Your task to perform on an android device: Open ESPN.com Image 0: 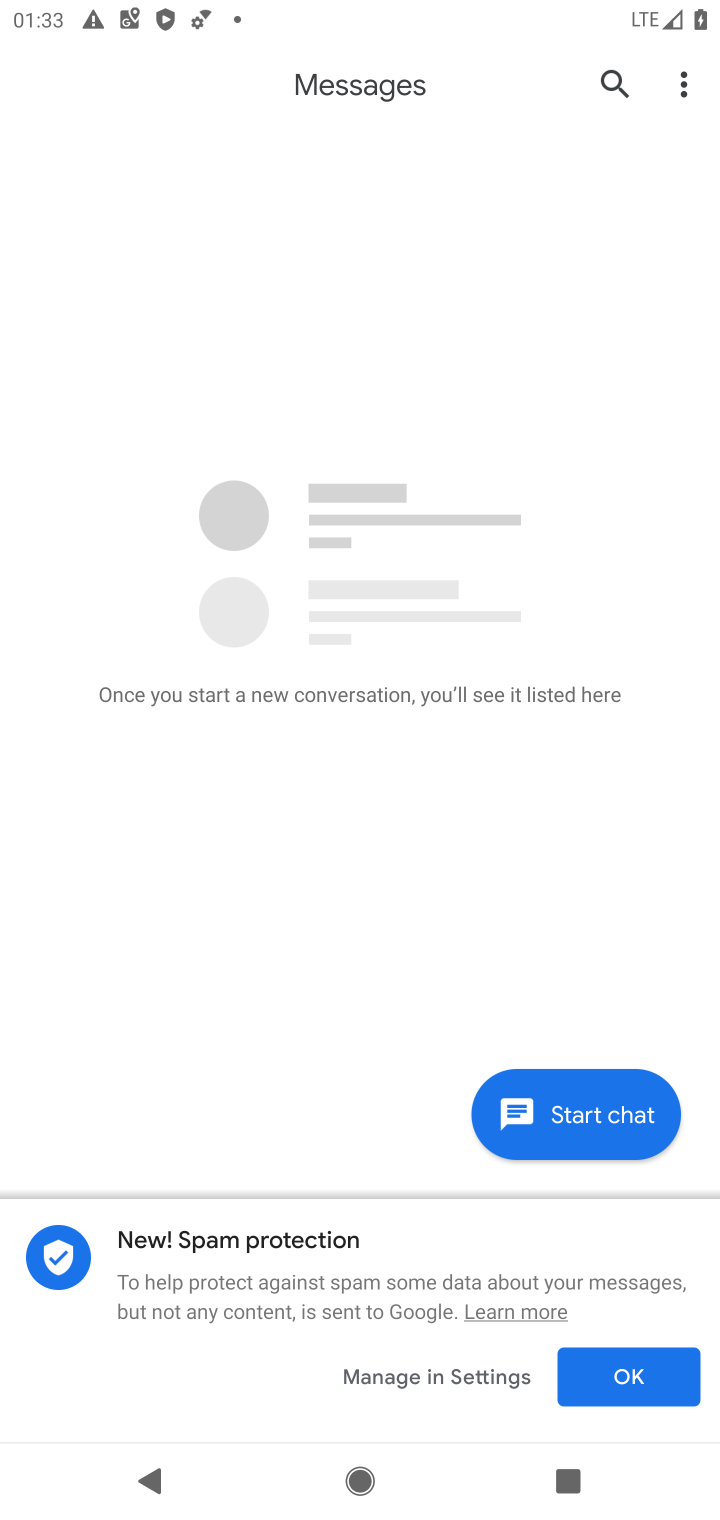
Step 0: press home button
Your task to perform on an android device: Open ESPN.com Image 1: 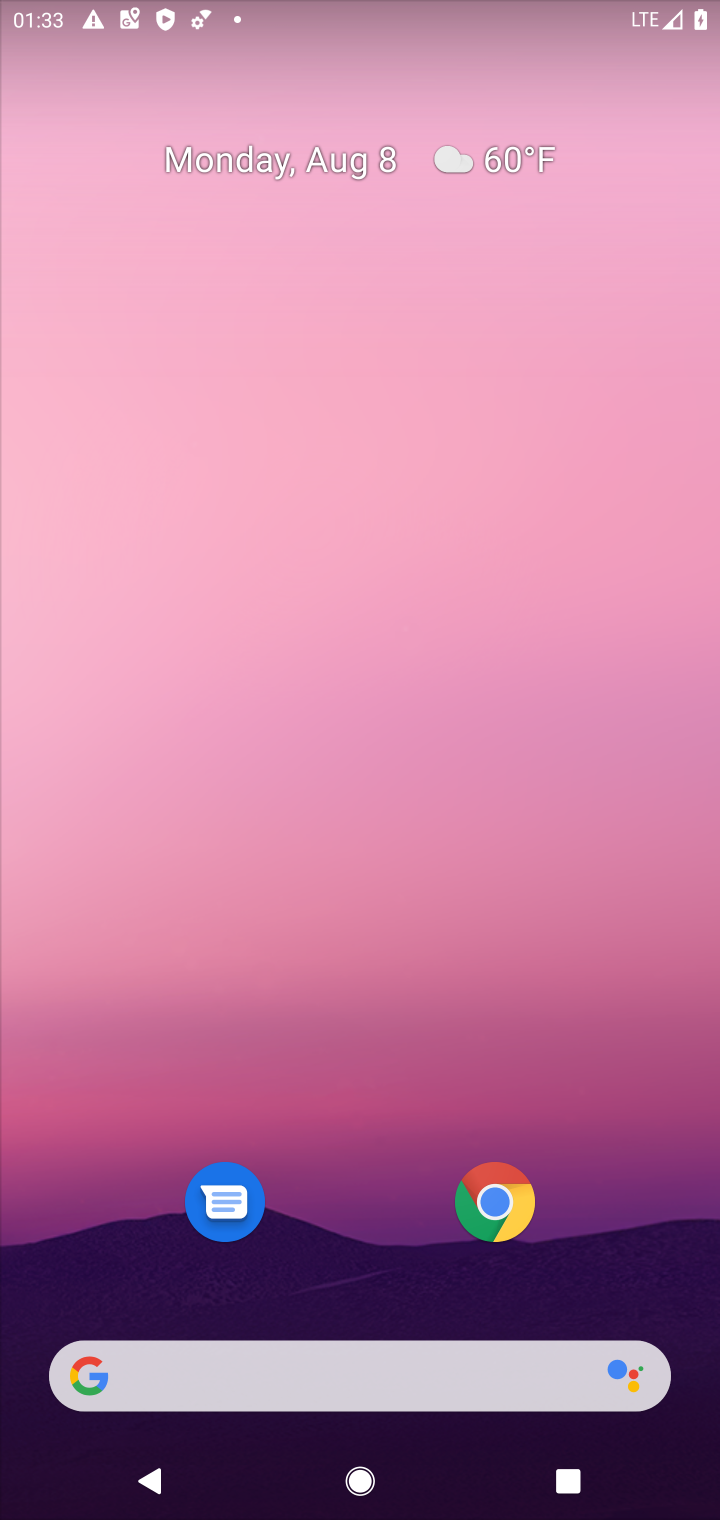
Step 1: click (478, 1204)
Your task to perform on an android device: Open ESPN.com Image 2: 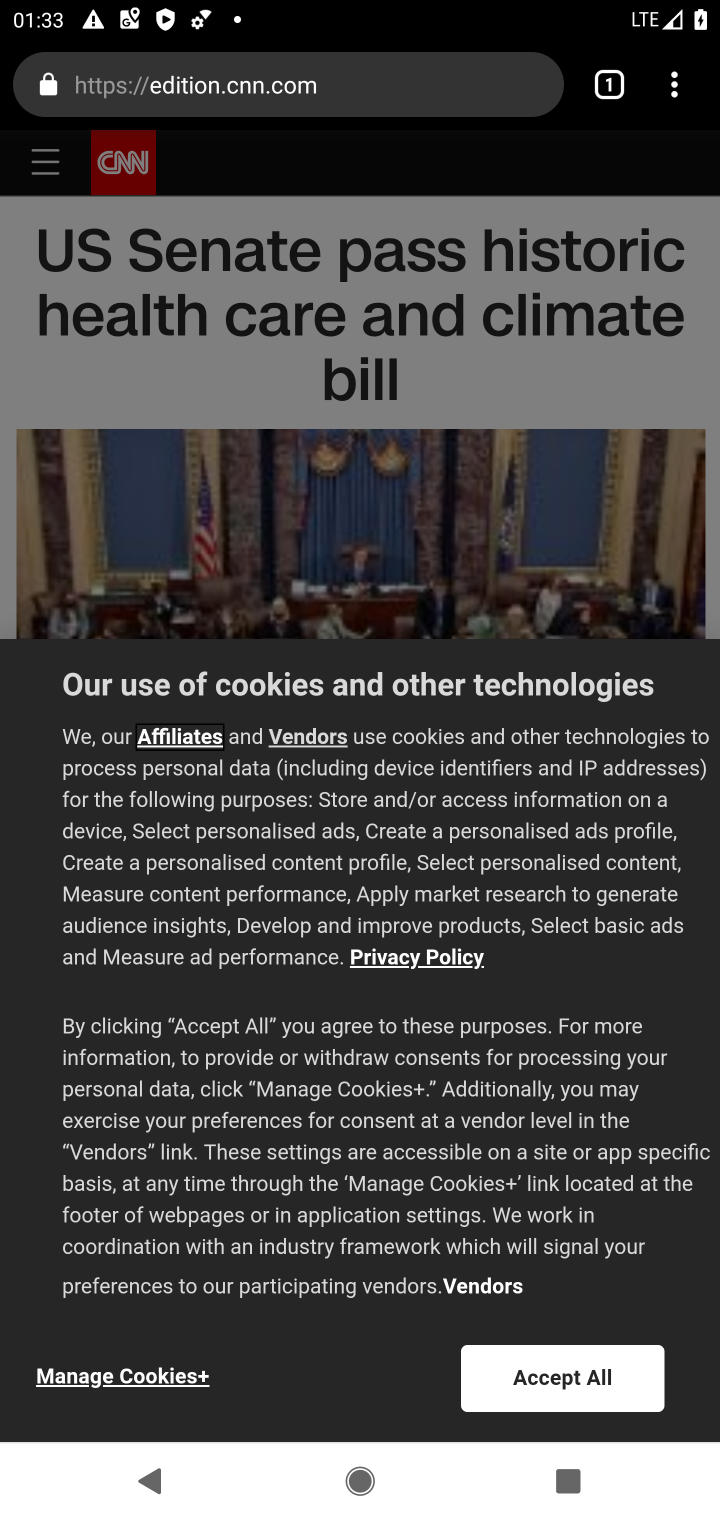
Step 2: click (280, 103)
Your task to perform on an android device: Open ESPN.com Image 3: 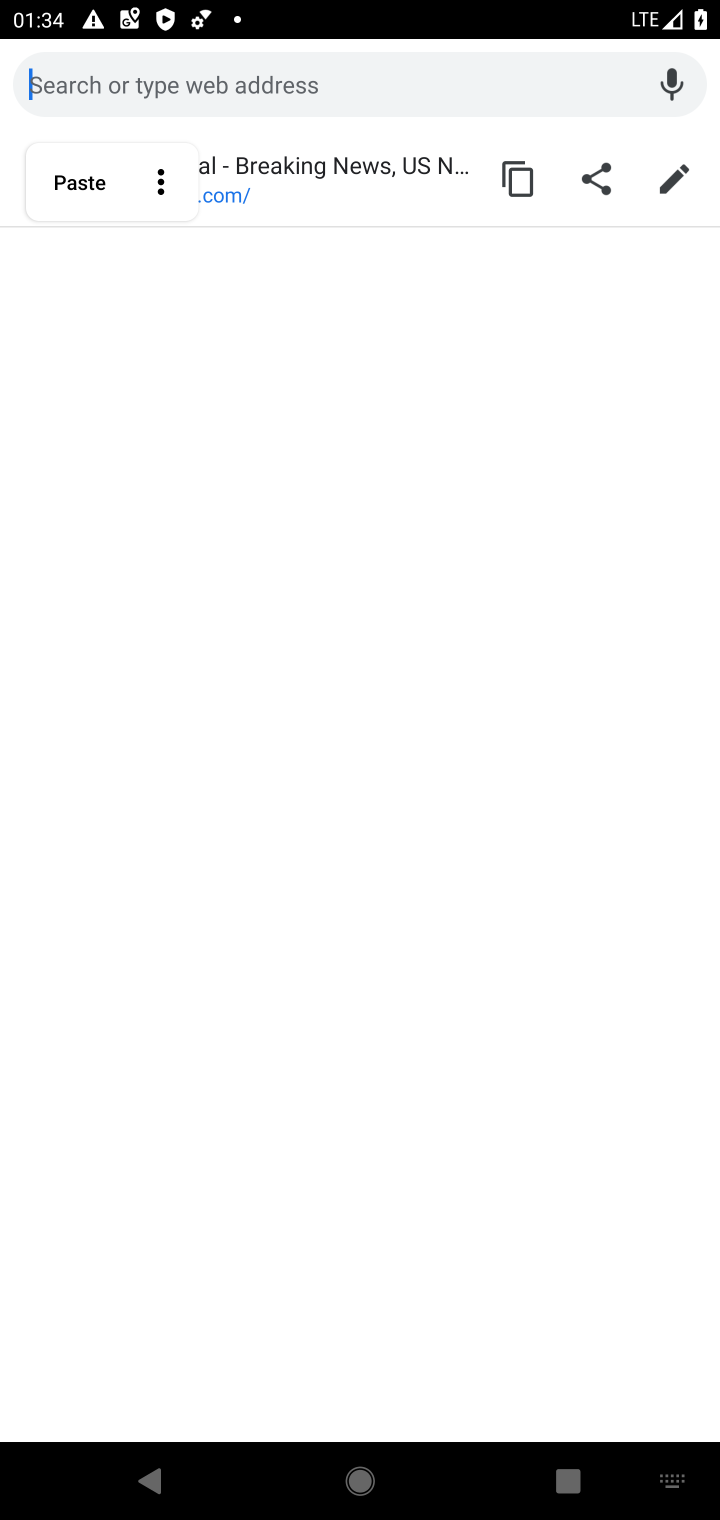
Step 3: type "www.espn.com"
Your task to perform on an android device: Open ESPN.com Image 4: 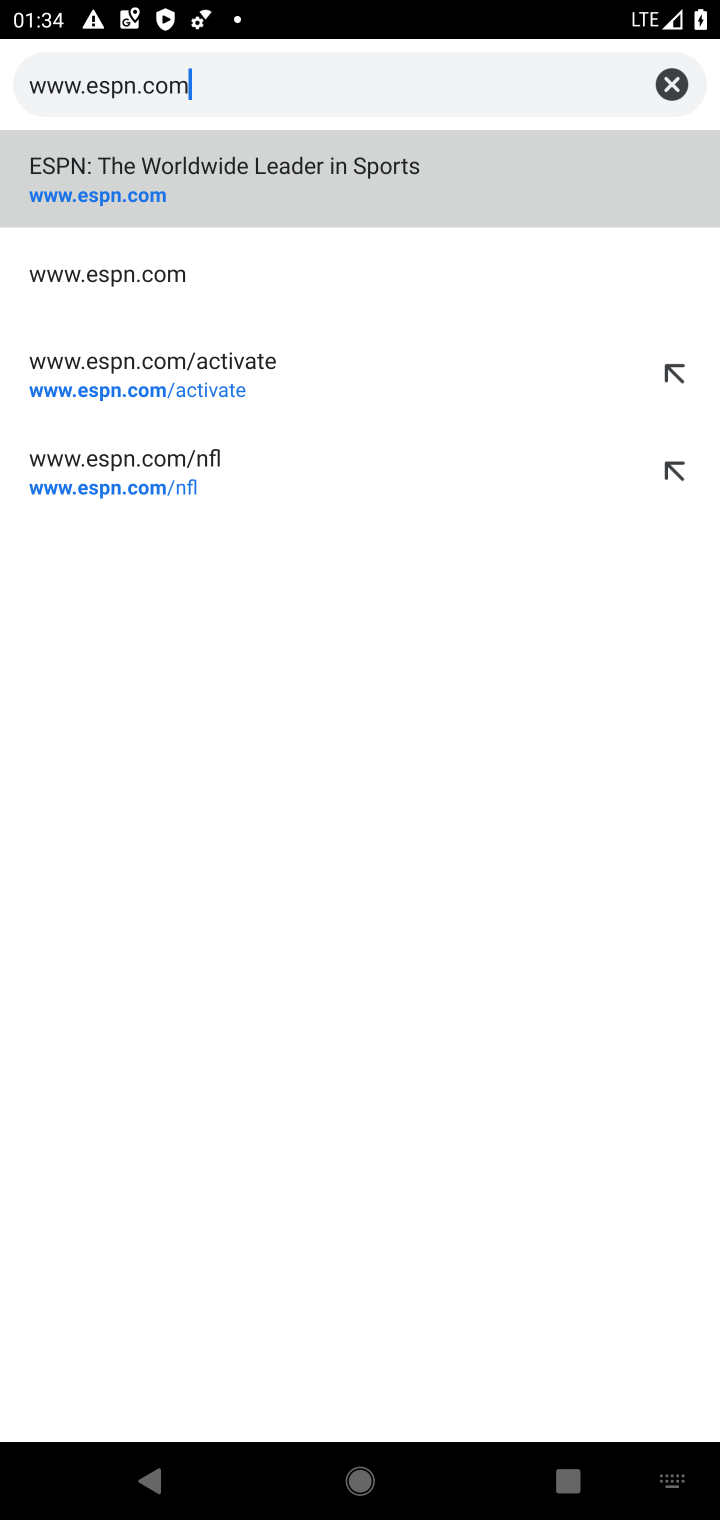
Step 4: click (195, 188)
Your task to perform on an android device: Open ESPN.com Image 5: 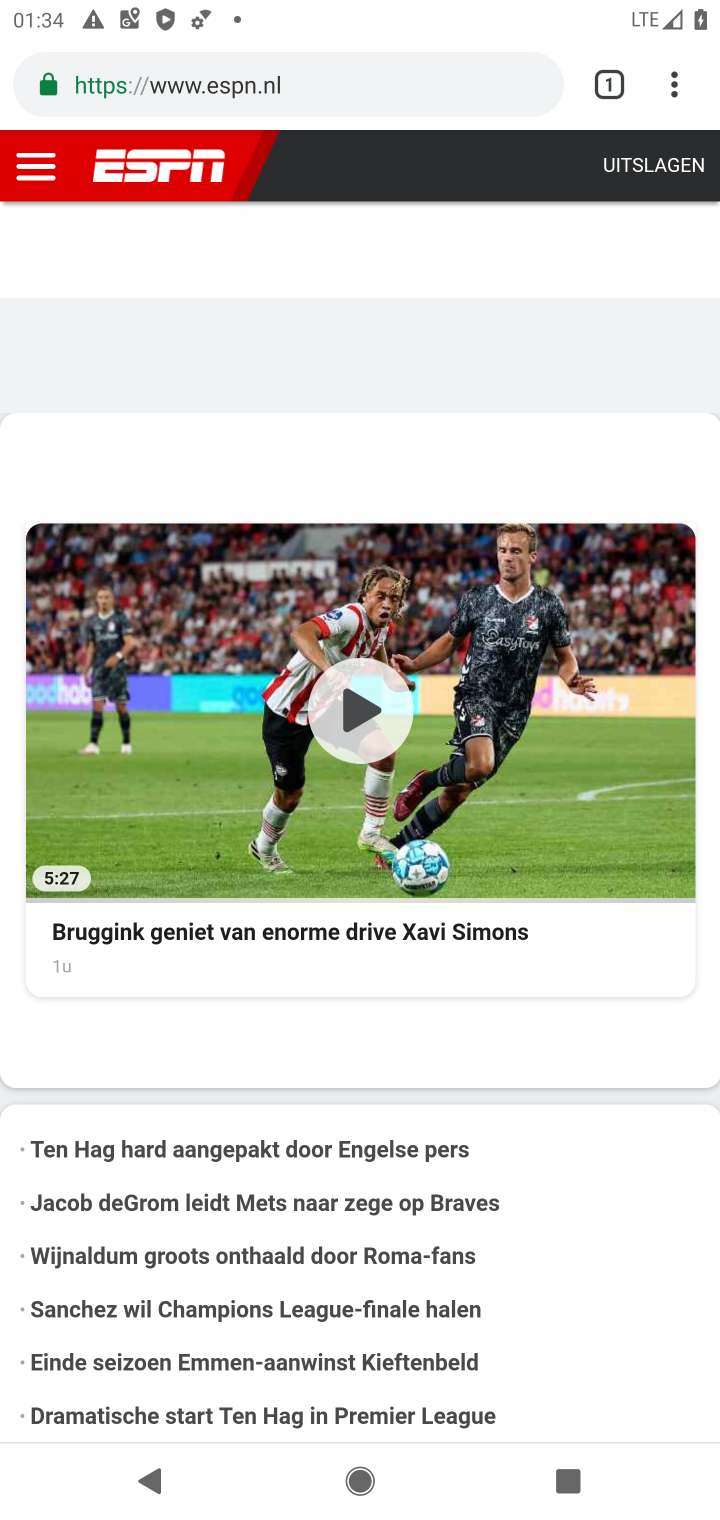
Step 5: task complete